Your task to perform on an android device: find which apps use the phone's location Image 0: 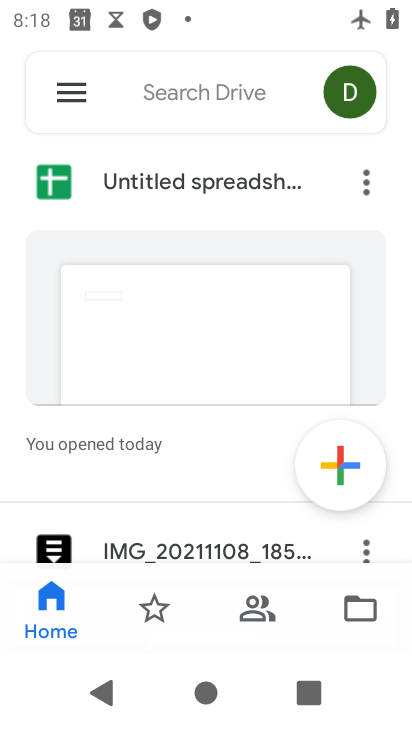
Step 0: press home button
Your task to perform on an android device: find which apps use the phone's location Image 1: 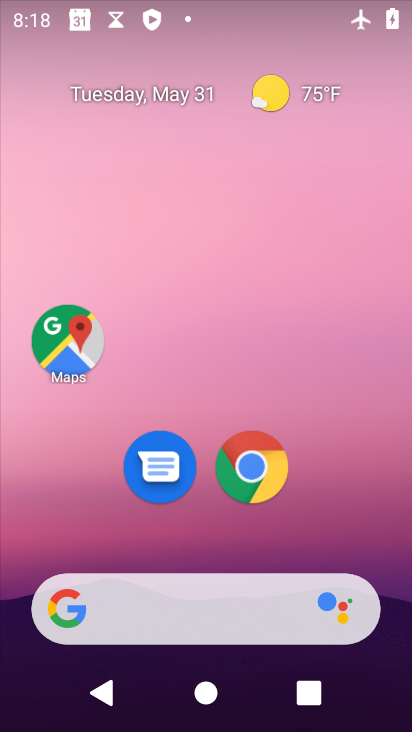
Step 1: drag from (233, 552) to (276, 190)
Your task to perform on an android device: find which apps use the phone's location Image 2: 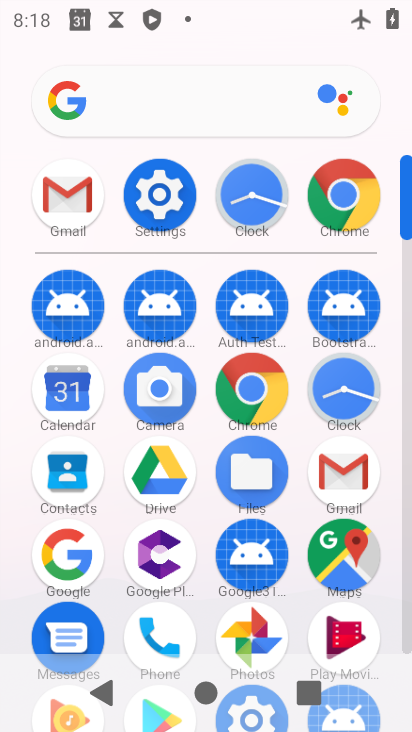
Step 2: click (144, 234)
Your task to perform on an android device: find which apps use the phone's location Image 3: 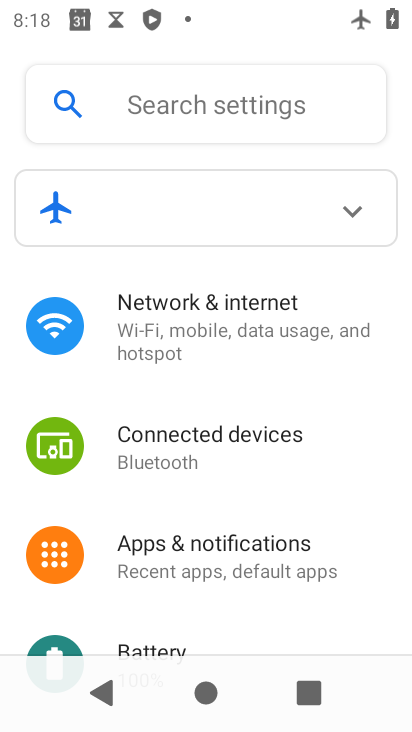
Step 3: drag from (219, 516) to (233, 4)
Your task to perform on an android device: find which apps use the phone's location Image 4: 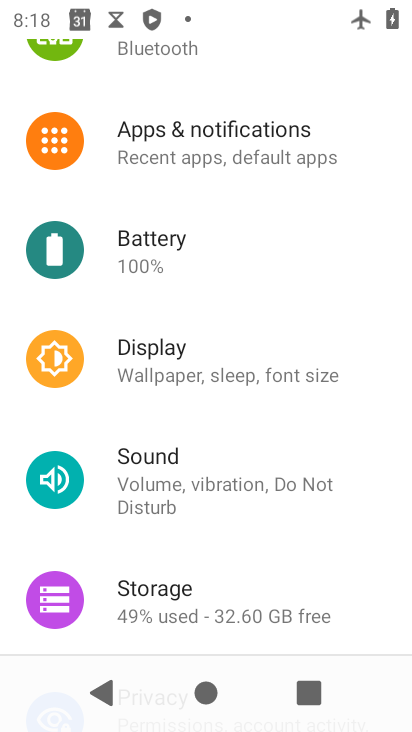
Step 4: drag from (173, 548) to (264, 101)
Your task to perform on an android device: find which apps use the phone's location Image 5: 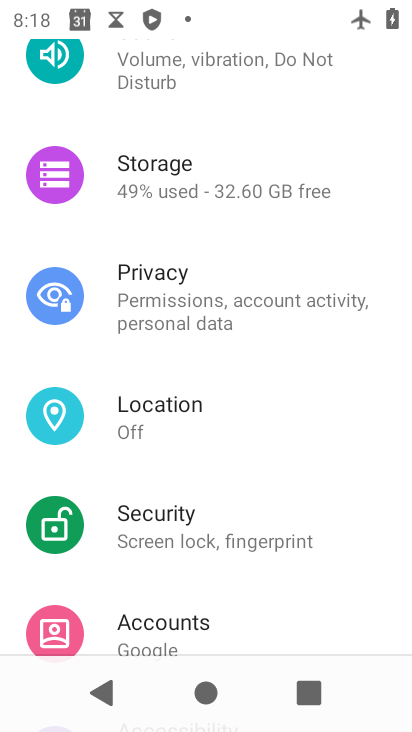
Step 5: drag from (233, 517) to (272, 134)
Your task to perform on an android device: find which apps use the phone's location Image 6: 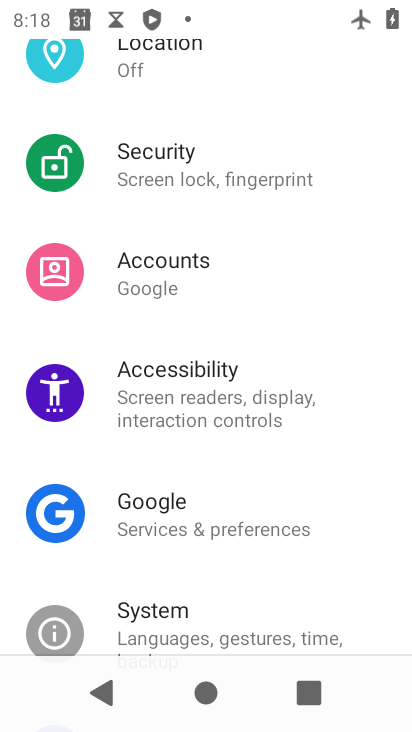
Step 6: drag from (202, 599) to (263, 261)
Your task to perform on an android device: find which apps use the phone's location Image 7: 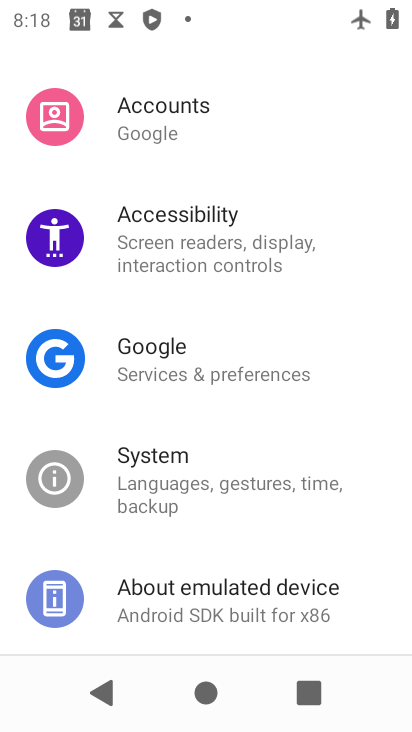
Step 7: drag from (216, 180) to (211, 554)
Your task to perform on an android device: find which apps use the phone's location Image 8: 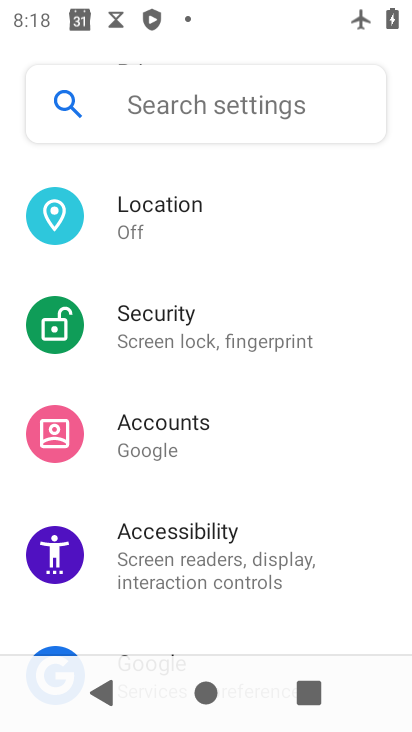
Step 8: click (209, 224)
Your task to perform on an android device: find which apps use the phone's location Image 9: 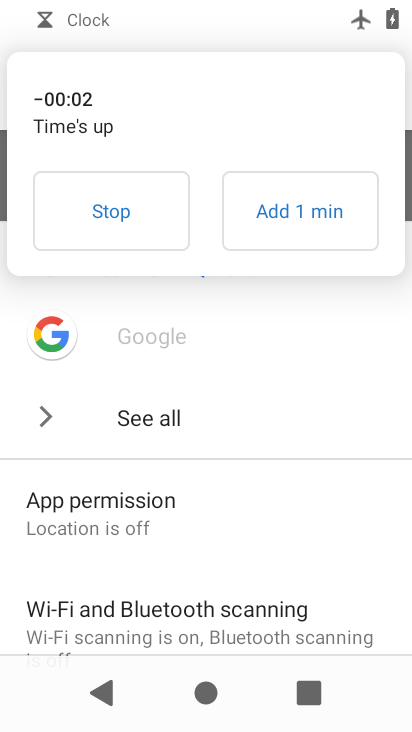
Step 9: click (120, 222)
Your task to perform on an android device: find which apps use the phone's location Image 10: 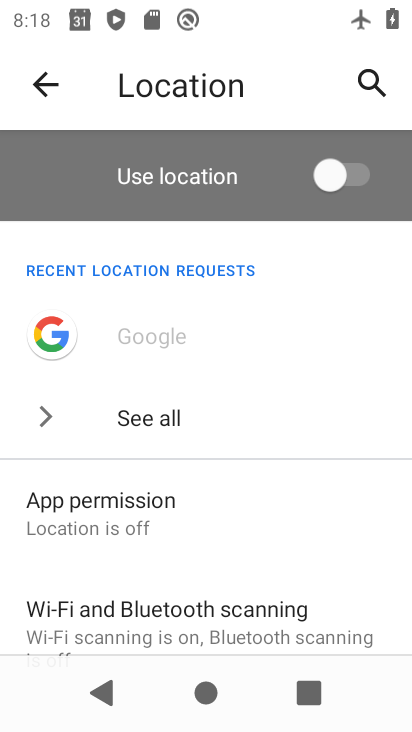
Step 10: click (108, 529)
Your task to perform on an android device: find which apps use the phone's location Image 11: 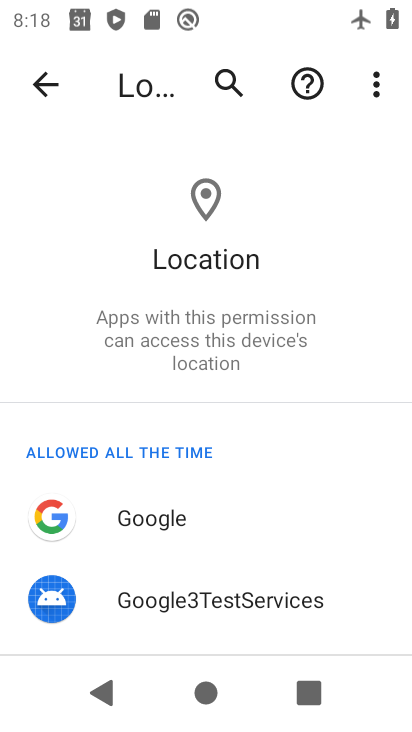
Step 11: task complete